Your task to perform on an android device: open app "Pinterest" Image 0: 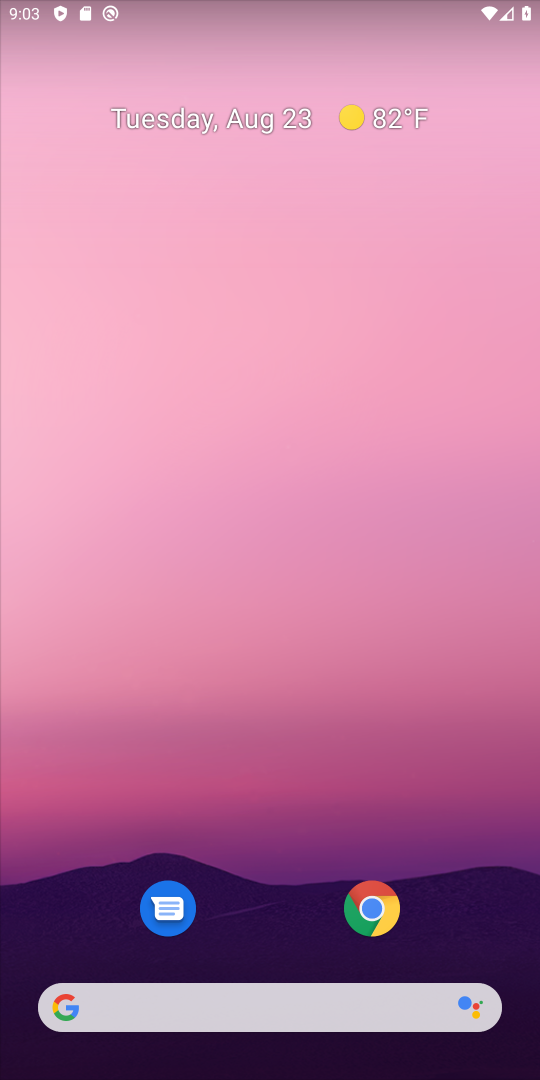
Step 0: drag from (276, 894) to (264, 22)
Your task to perform on an android device: open app "Pinterest" Image 1: 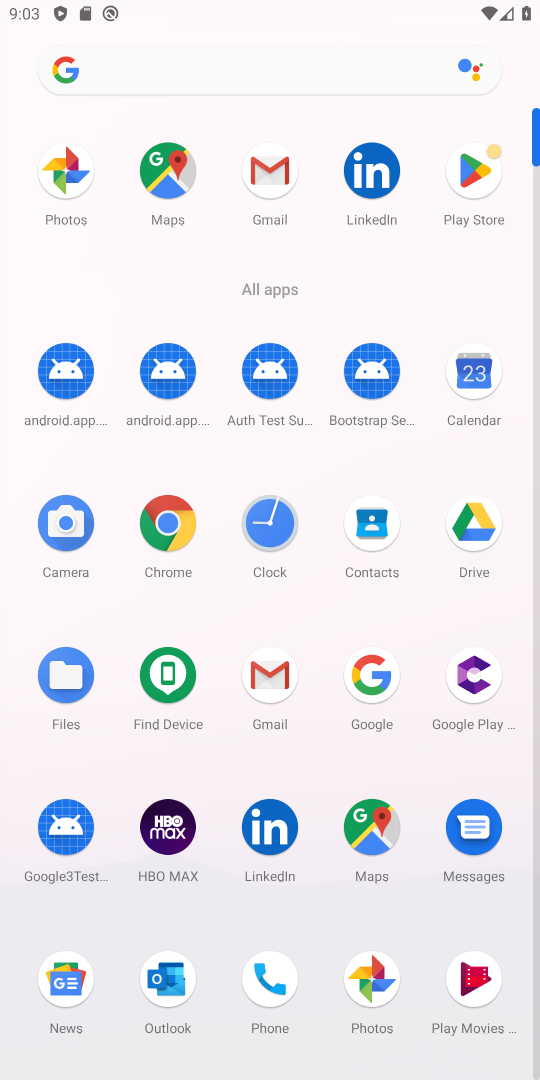
Step 1: click (483, 188)
Your task to perform on an android device: open app "Pinterest" Image 2: 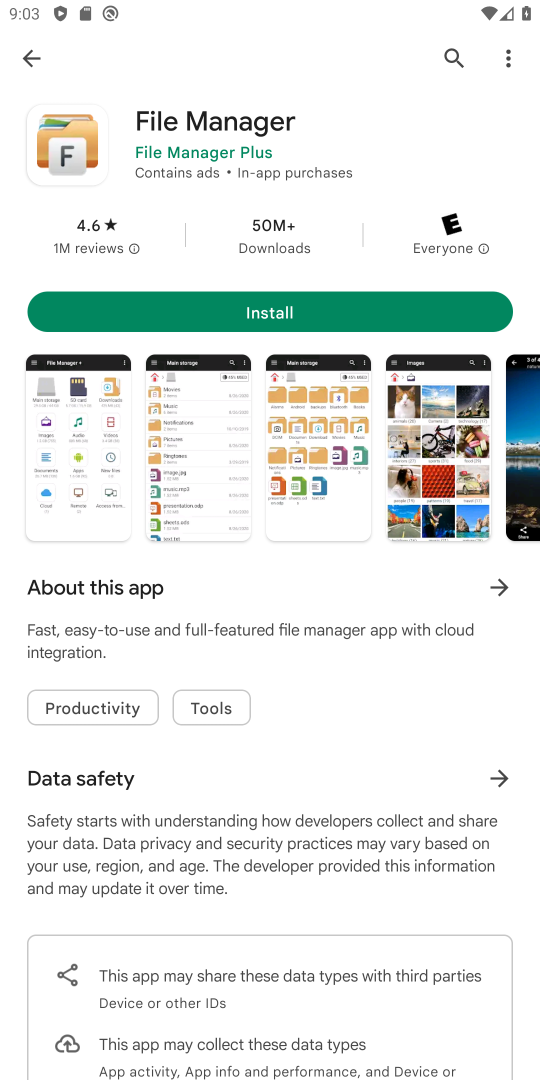
Step 2: click (24, 47)
Your task to perform on an android device: open app "Pinterest" Image 3: 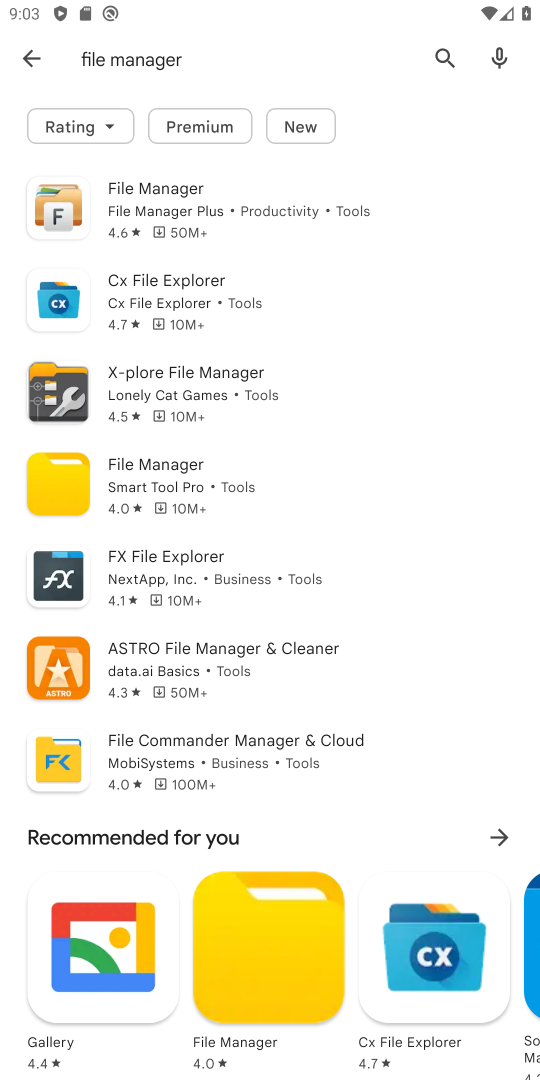
Step 3: click (234, 57)
Your task to perform on an android device: open app "Pinterest" Image 4: 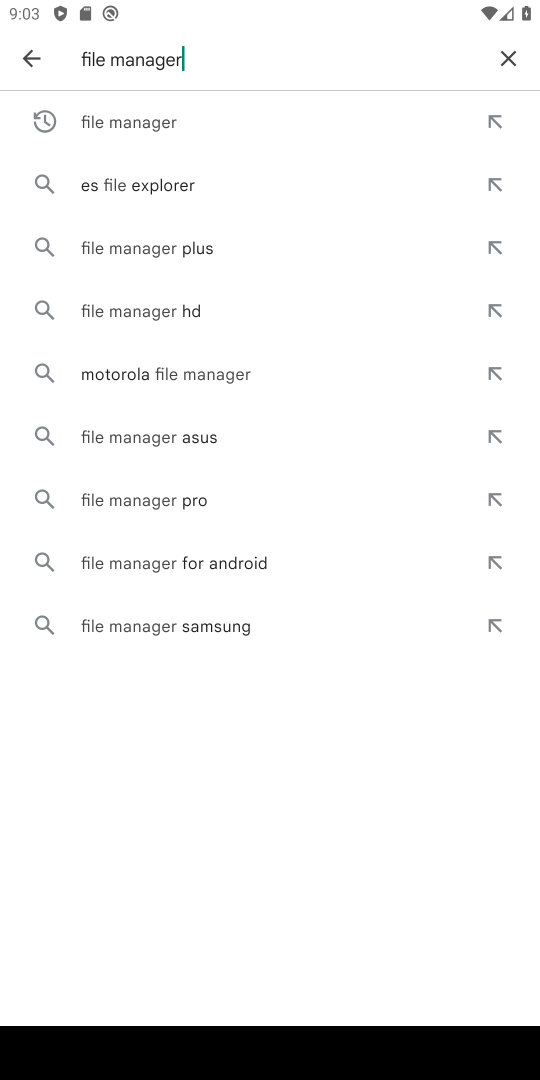
Step 4: click (516, 51)
Your task to perform on an android device: open app "Pinterest" Image 5: 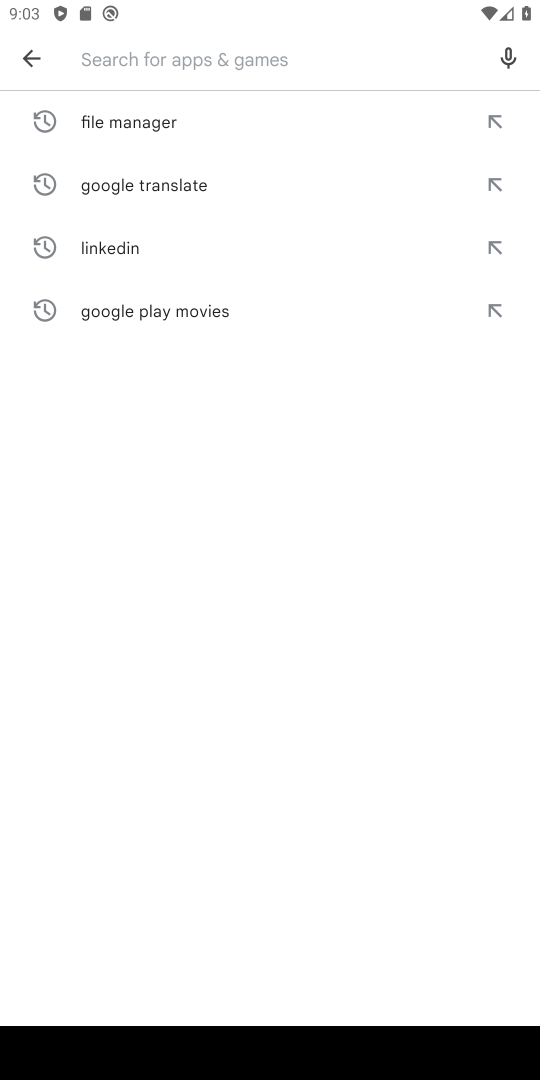
Step 5: type "pinterest"
Your task to perform on an android device: open app "Pinterest" Image 6: 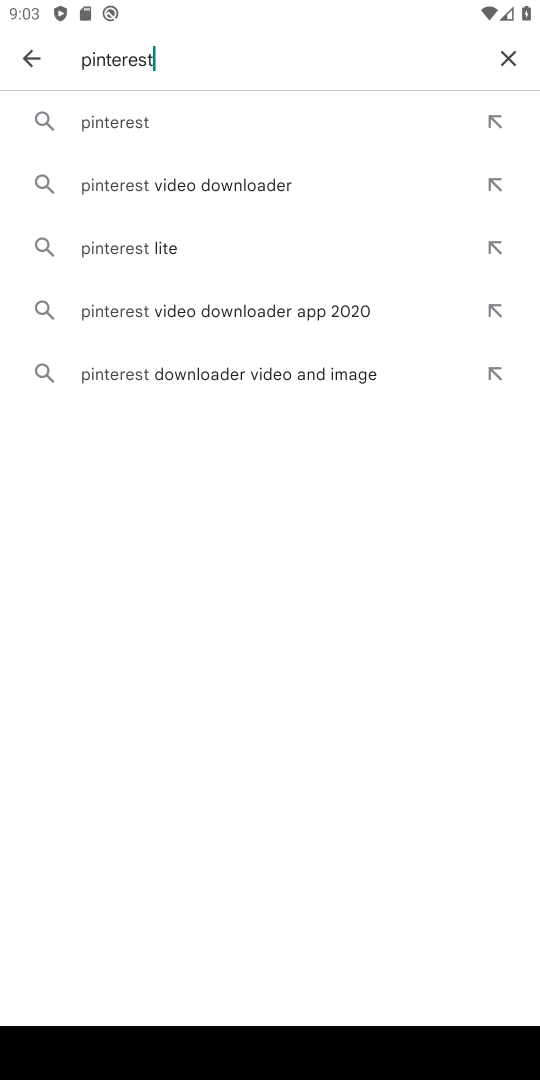
Step 6: click (130, 129)
Your task to perform on an android device: open app "Pinterest" Image 7: 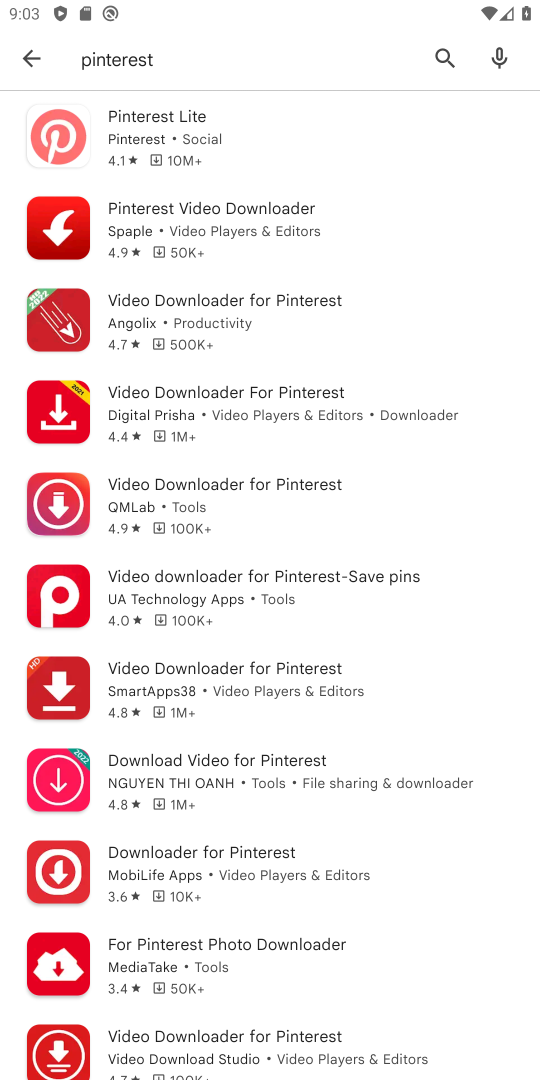
Step 7: task complete